Your task to perform on an android device: turn off javascript in the chrome app Image 0: 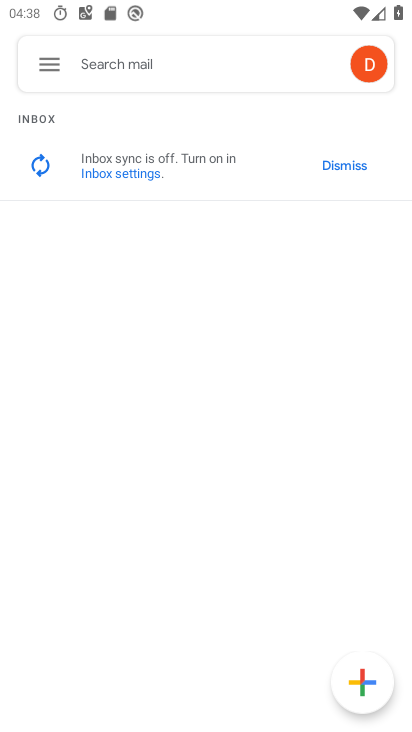
Step 0: press home button
Your task to perform on an android device: turn off javascript in the chrome app Image 1: 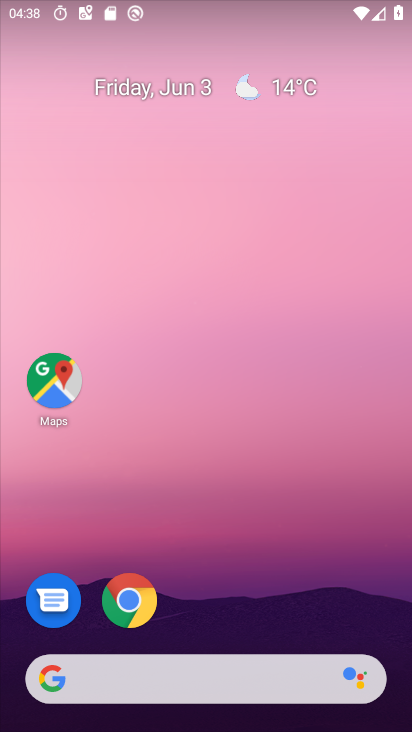
Step 1: click (129, 601)
Your task to perform on an android device: turn off javascript in the chrome app Image 2: 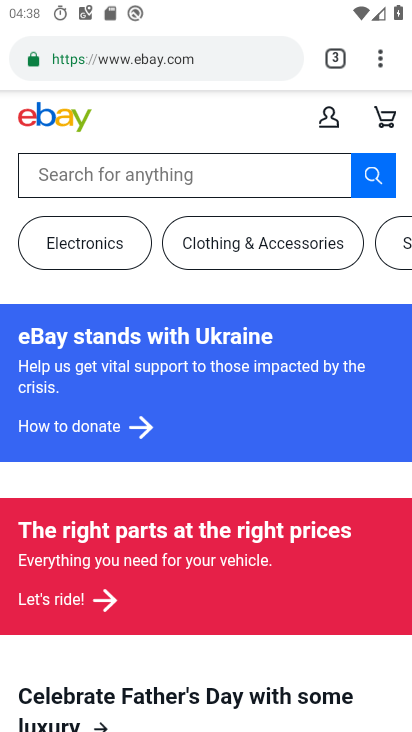
Step 2: click (387, 50)
Your task to perform on an android device: turn off javascript in the chrome app Image 3: 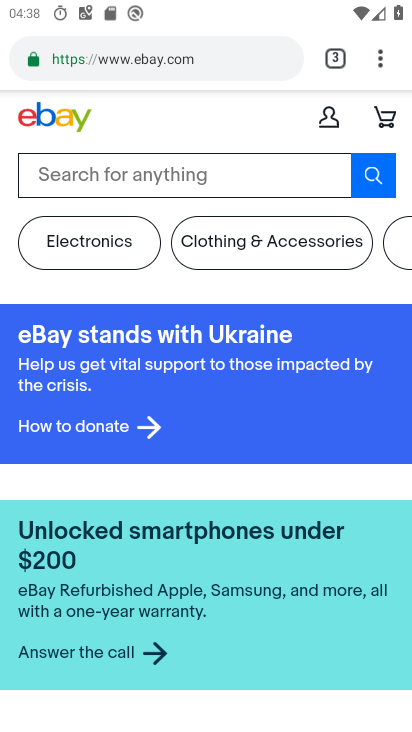
Step 3: drag from (377, 59) to (216, 625)
Your task to perform on an android device: turn off javascript in the chrome app Image 4: 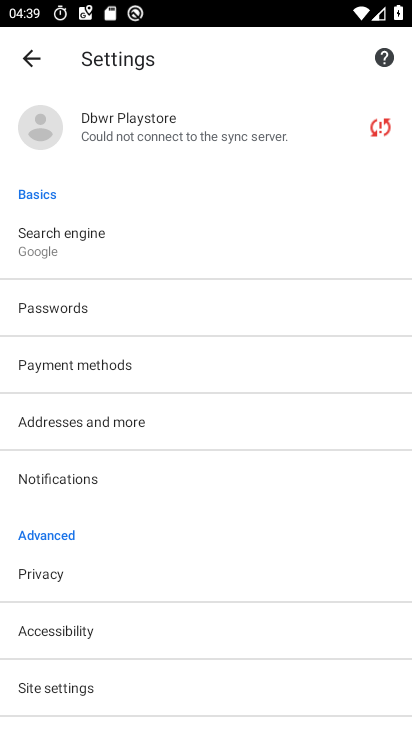
Step 4: drag from (93, 620) to (164, 294)
Your task to perform on an android device: turn off javascript in the chrome app Image 5: 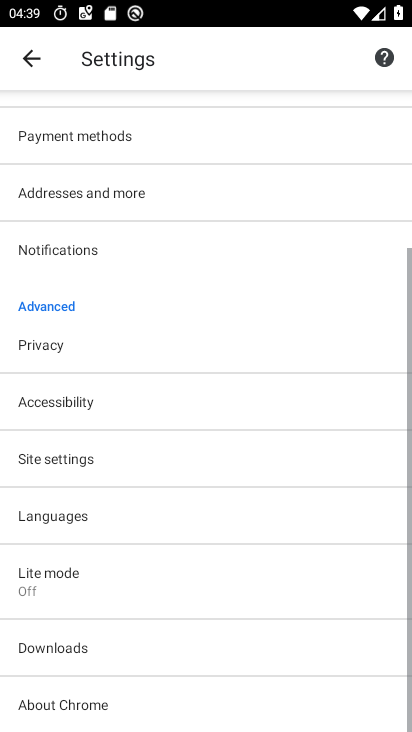
Step 5: click (81, 457)
Your task to perform on an android device: turn off javascript in the chrome app Image 6: 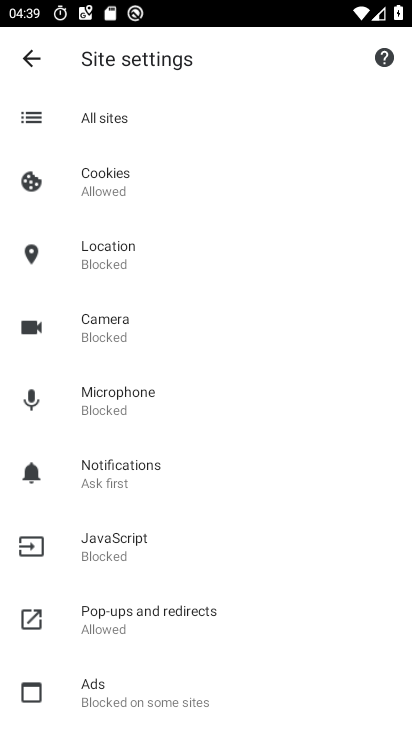
Step 6: click (129, 547)
Your task to perform on an android device: turn off javascript in the chrome app Image 7: 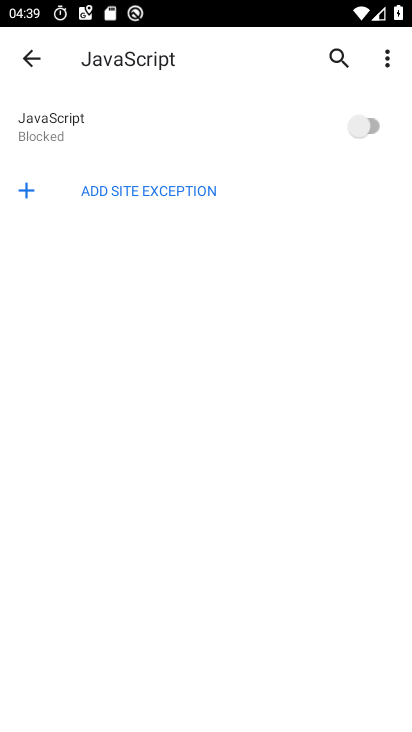
Step 7: task complete